Your task to perform on an android device: Go to sound settings Image 0: 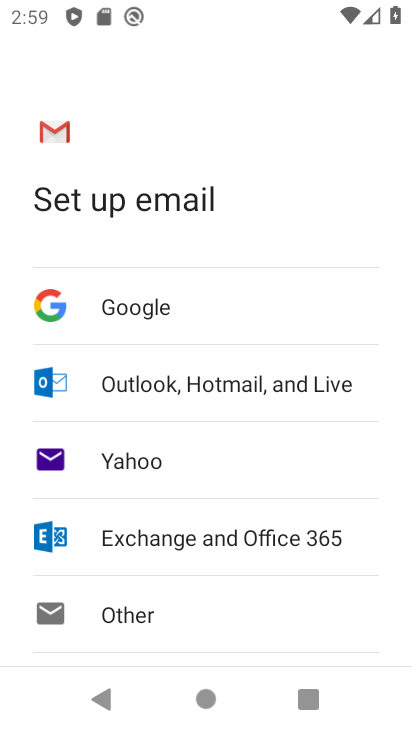
Step 0: press home button
Your task to perform on an android device: Go to sound settings Image 1: 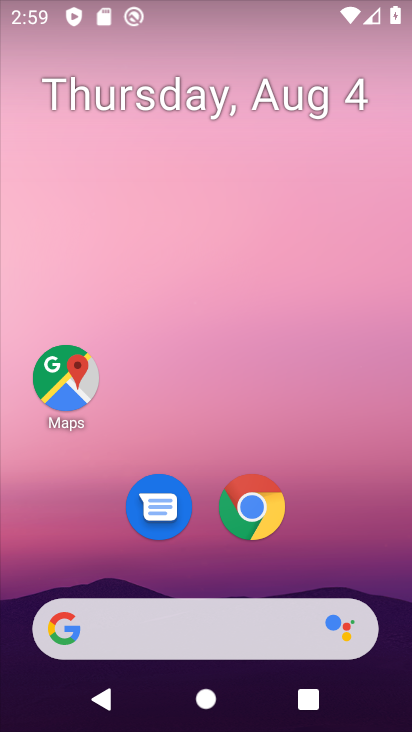
Step 1: drag from (17, 692) to (208, 193)
Your task to perform on an android device: Go to sound settings Image 2: 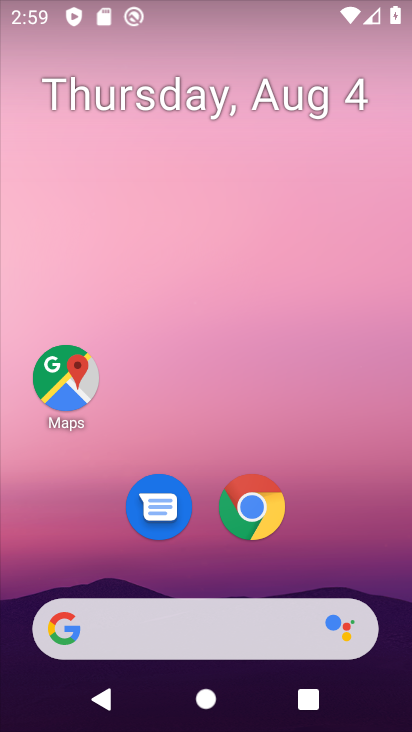
Step 2: drag from (30, 679) to (280, 10)
Your task to perform on an android device: Go to sound settings Image 3: 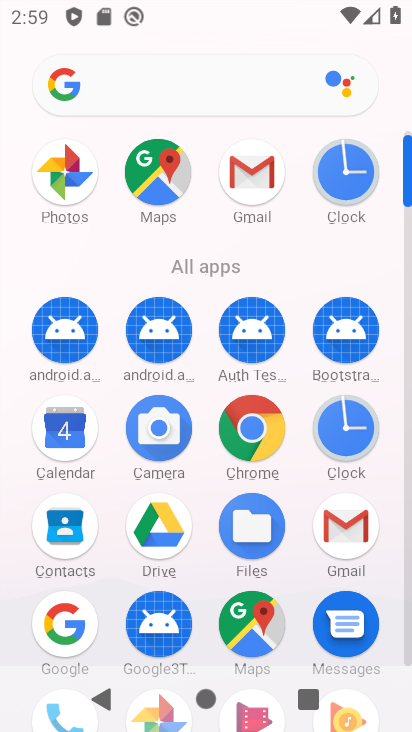
Step 3: drag from (191, 563) to (253, 191)
Your task to perform on an android device: Go to sound settings Image 4: 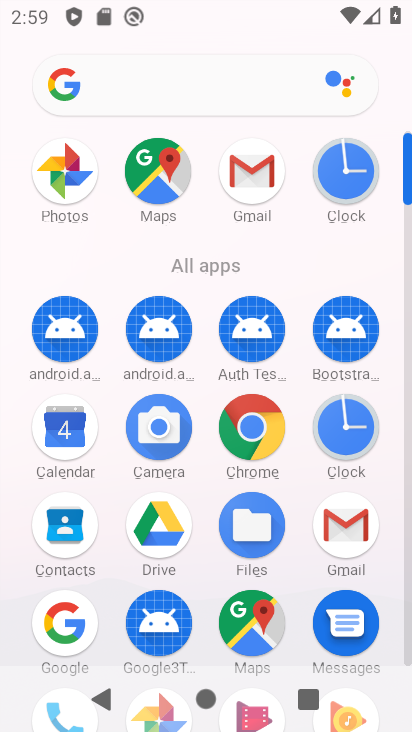
Step 4: drag from (224, 550) to (227, 31)
Your task to perform on an android device: Go to sound settings Image 5: 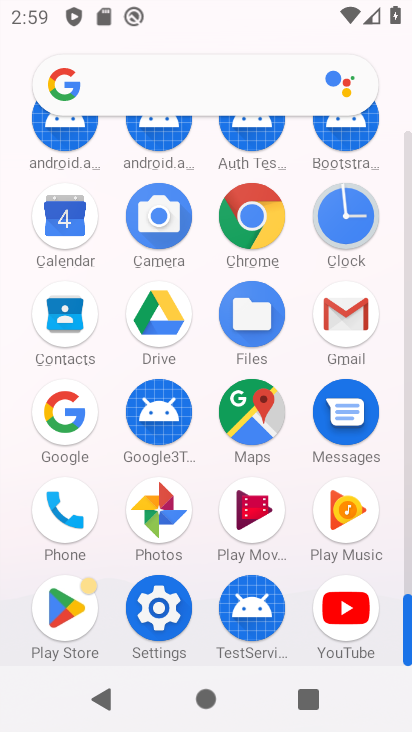
Step 5: click (161, 625)
Your task to perform on an android device: Go to sound settings Image 6: 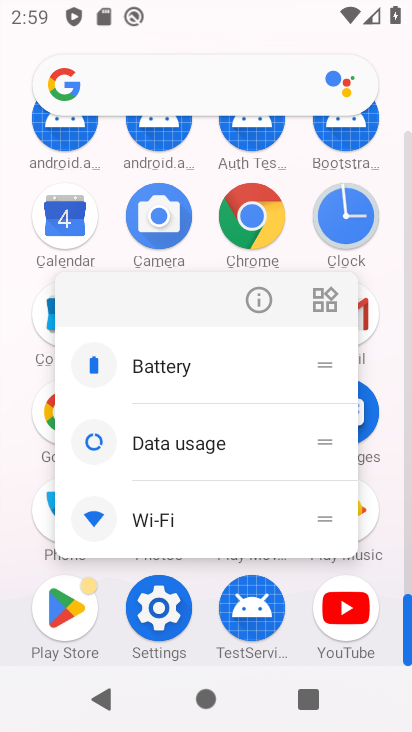
Step 6: click (157, 615)
Your task to perform on an android device: Go to sound settings Image 7: 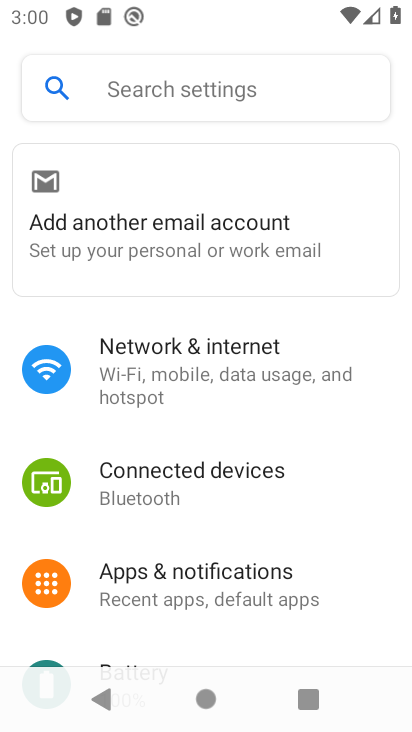
Step 7: drag from (145, 556) to (151, 233)
Your task to perform on an android device: Go to sound settings Image 8: 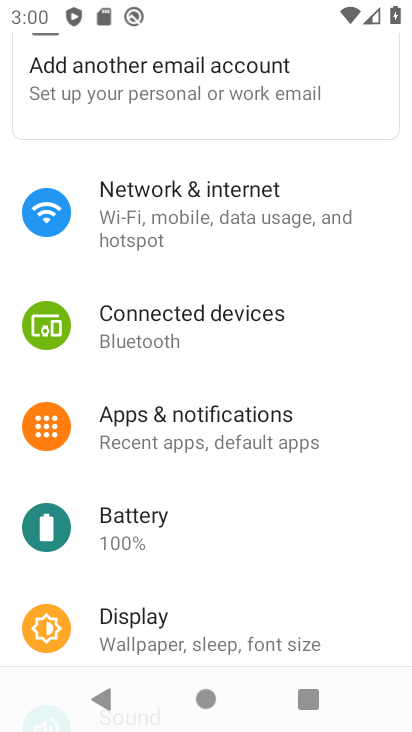
Step 8: drag from (210, 576) to (221, 108)
Your task to perform on an android device: Go to sound settings Image 9: 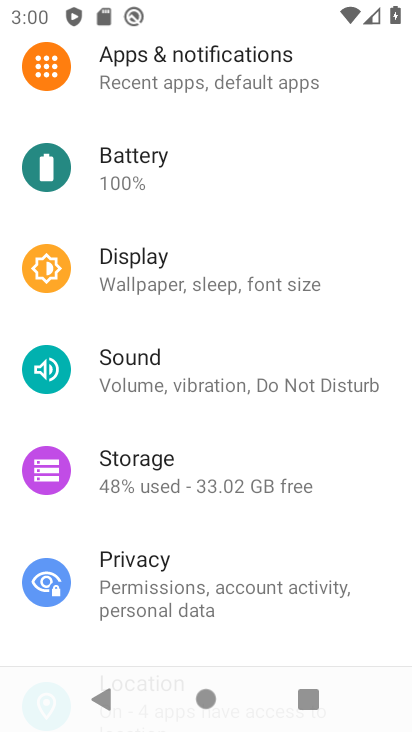
Step 9: click (129, 357)
Your task to perform on an android device: Go to sound settings Image 10: 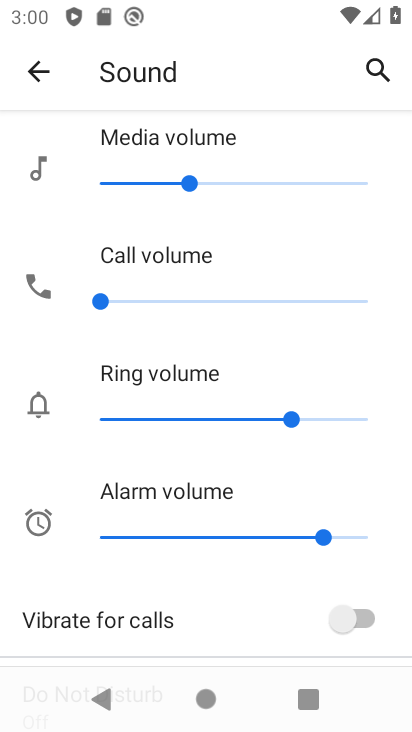
Step 10: task complete